Your task to perform on an android device: open app "Mercado Libre" (install if not already installed) Image 0: 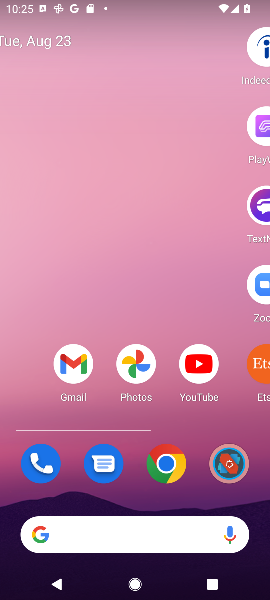
Step 0: press home button
Your task to perform on an android device: open app "Mercado Libre" (install if not already installed) Image 1: 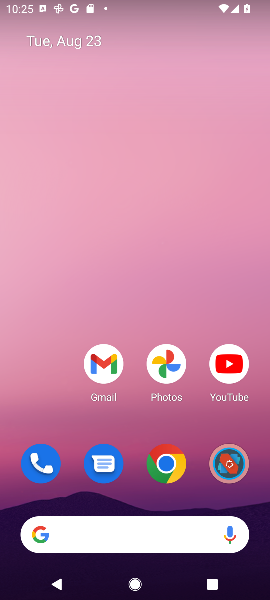
Step 1: drag from (135, 440) to (150, 57)
Your task to perform on an android device: open app "Mercado Libre" (install if not already installed) Image 2: 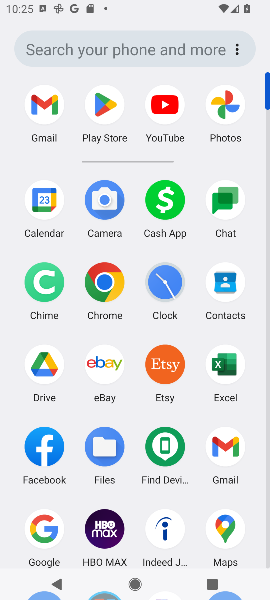
Step 2: click (108, 100)
Your task to perform on an android device: open app "Mercado Libre" (install if not already installed) Image 3: 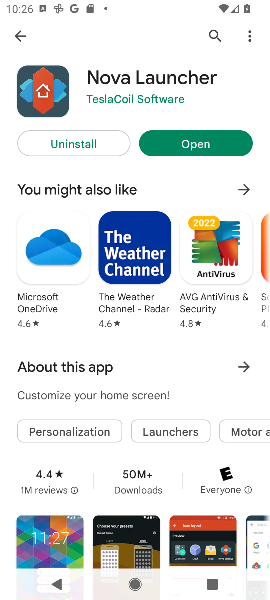
Step 3: click (190, 147)
Your task to perform on an android device: open app "Mercado Libre" (install if not already installed) Image 4: 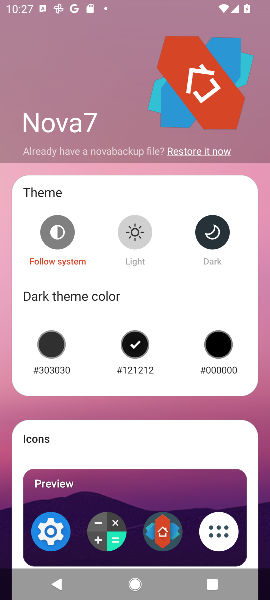
Step 4: task complete